Your task to perform on an android device: What is the recent news? Image 0: 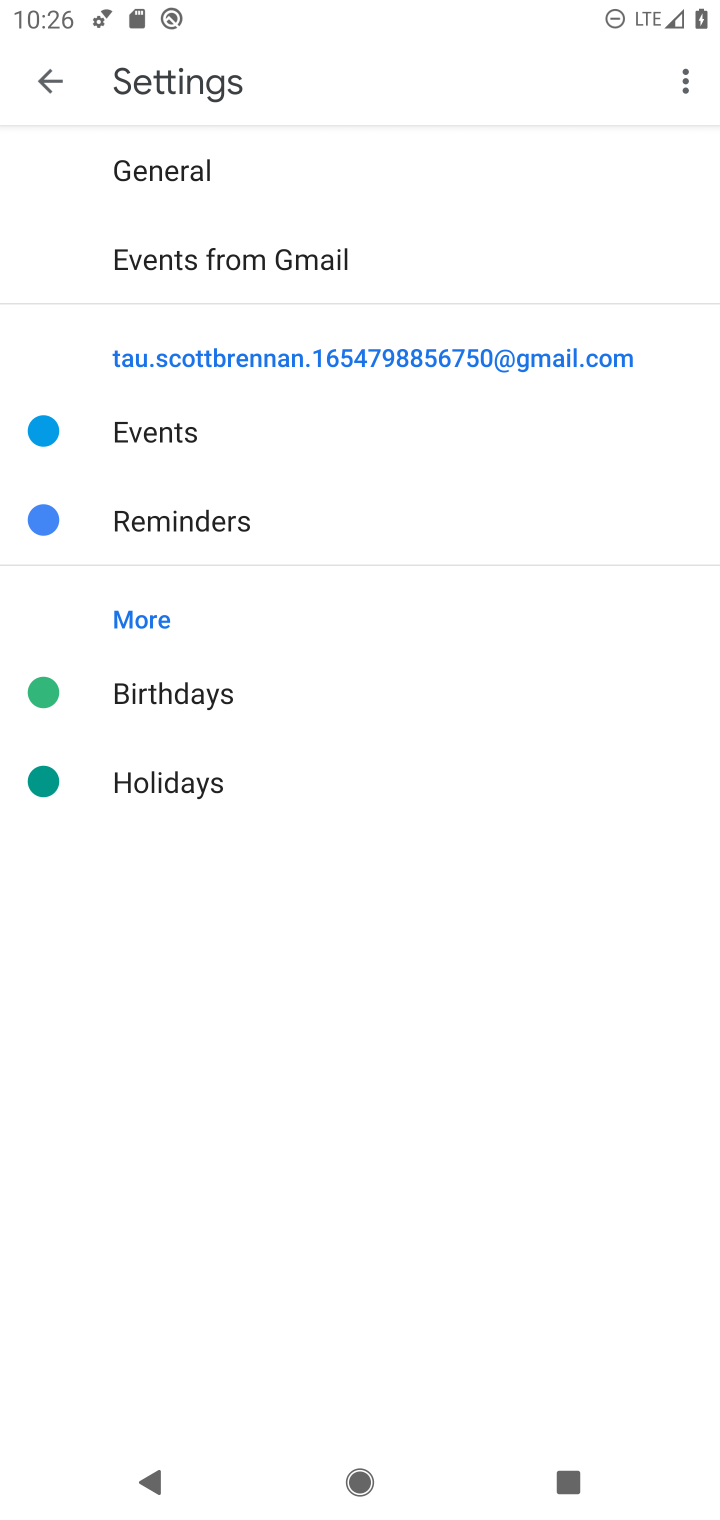
Step 0: press home button
Your task to perform on an android device: What is the recent news? Image 1: 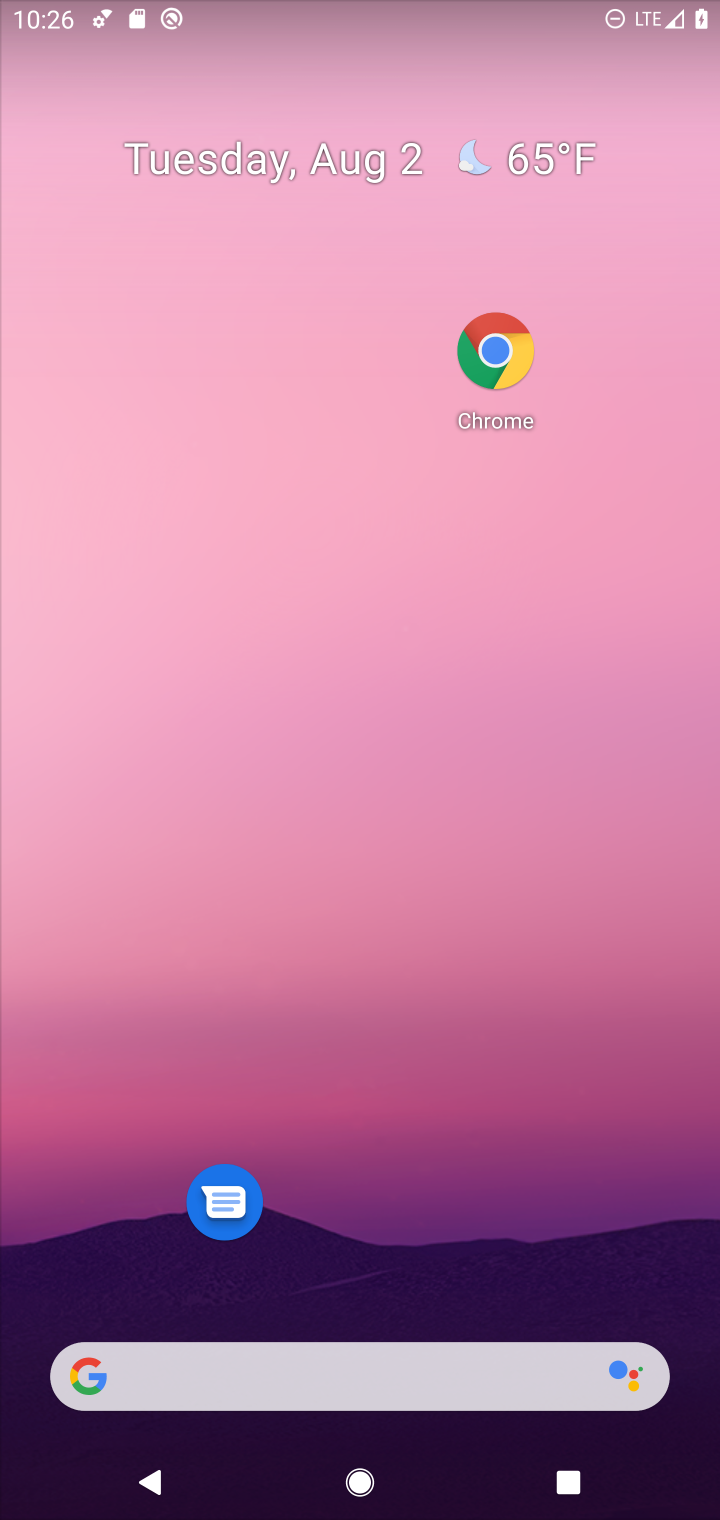
Step 1: click (232, 1363)
Your task to perform on an android device: What is the recent news? Image 2: 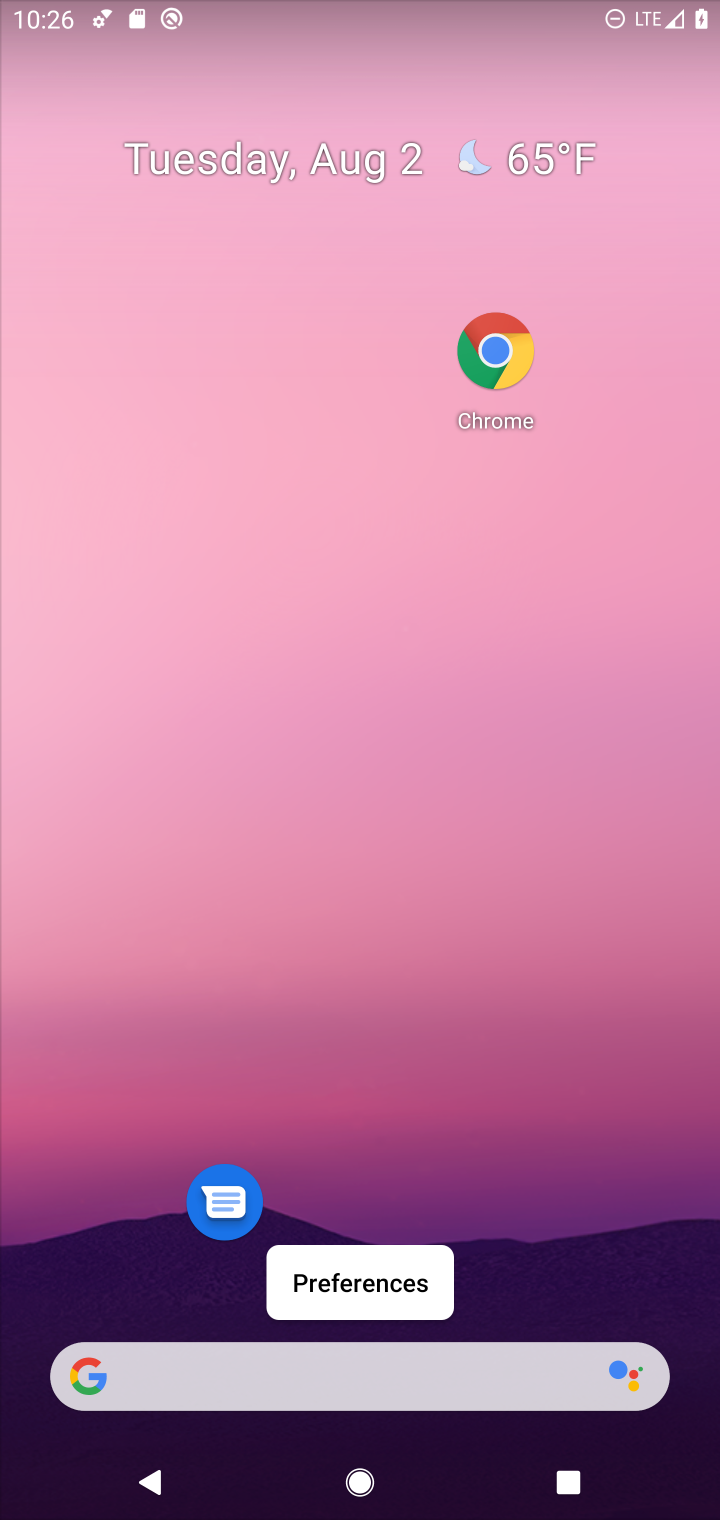
Step 2: click (205, 1371)
Your task to perform on an android device: What is the recent news? Image 3: 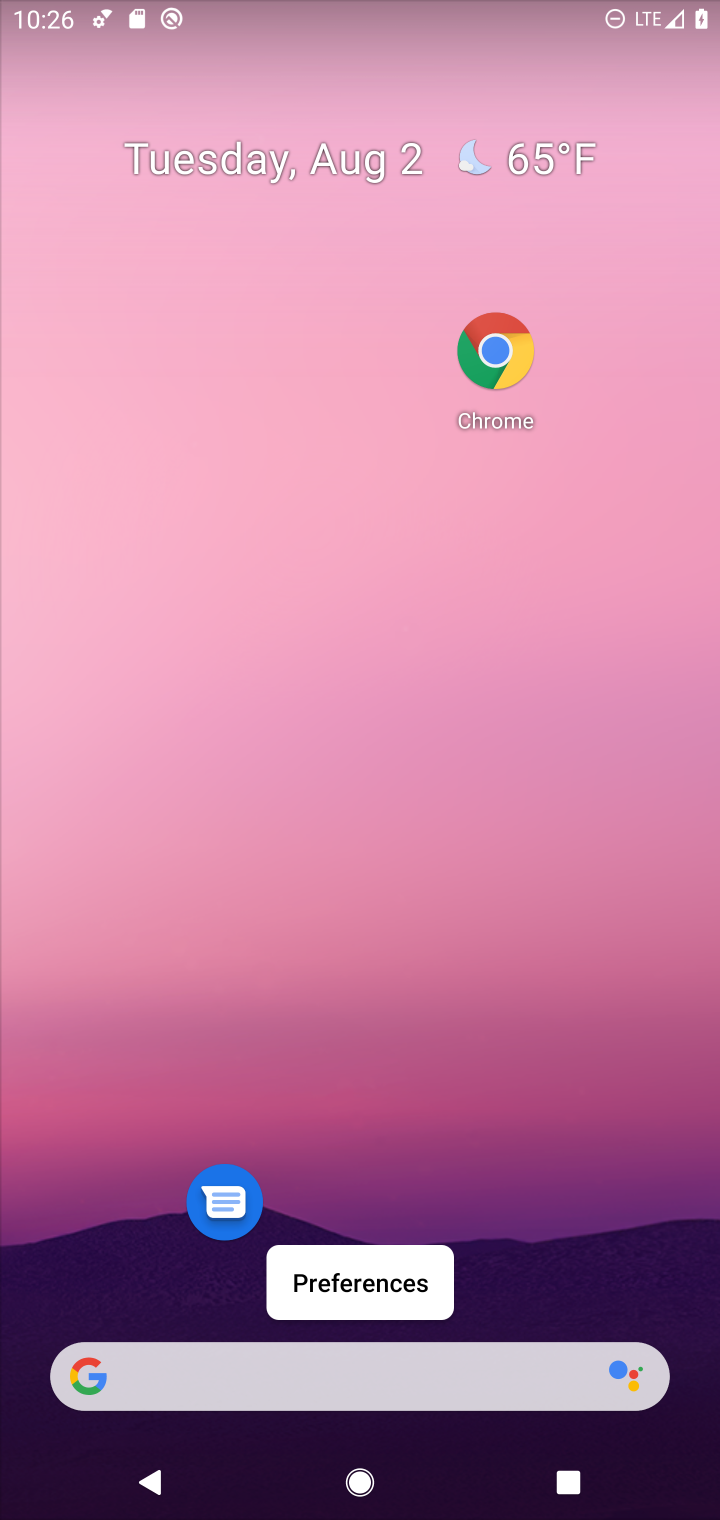
Step 3: click (214, 1366)
Your task to perform on an android device: What is the recent news? Image 4: 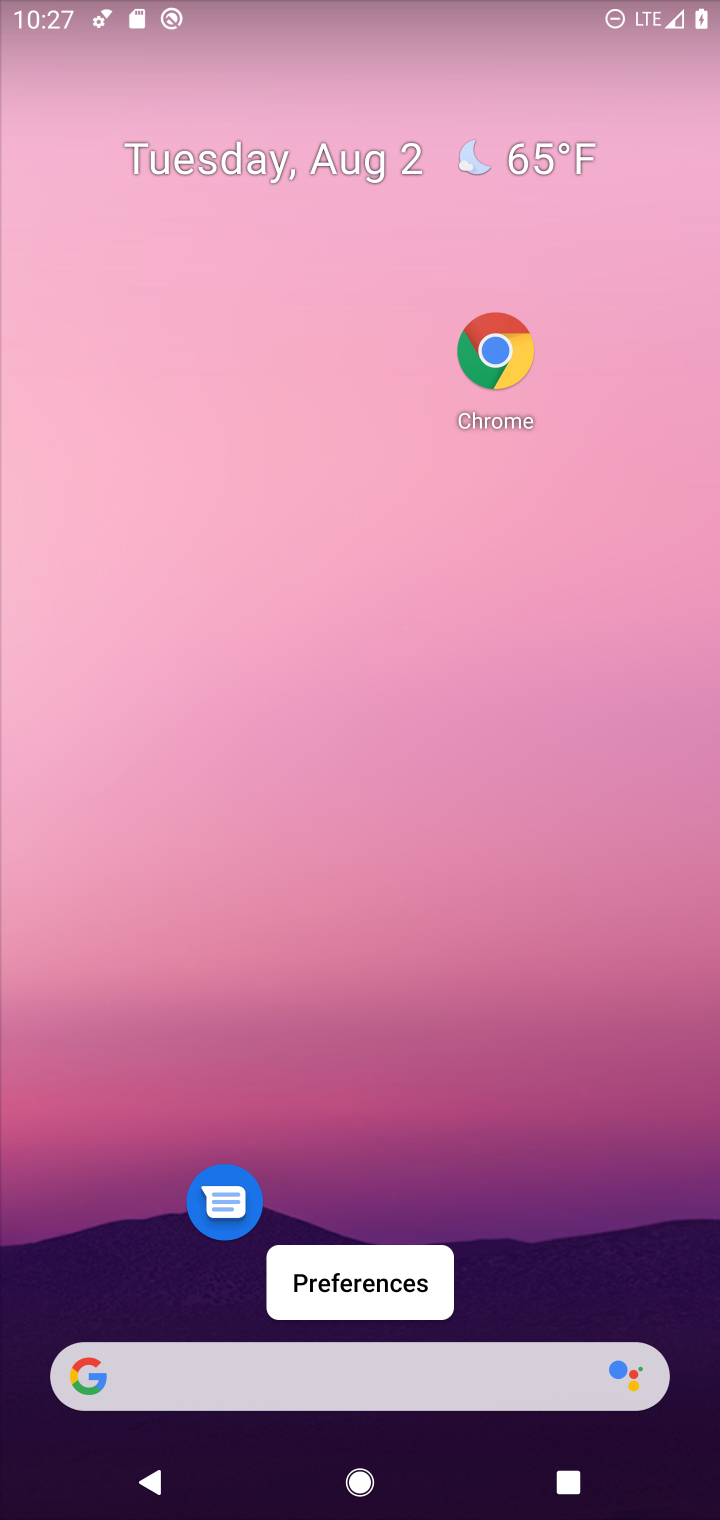
Step 4: click (174, 1371)
Your task to perform on an android device: What is the recent news? Image 5: 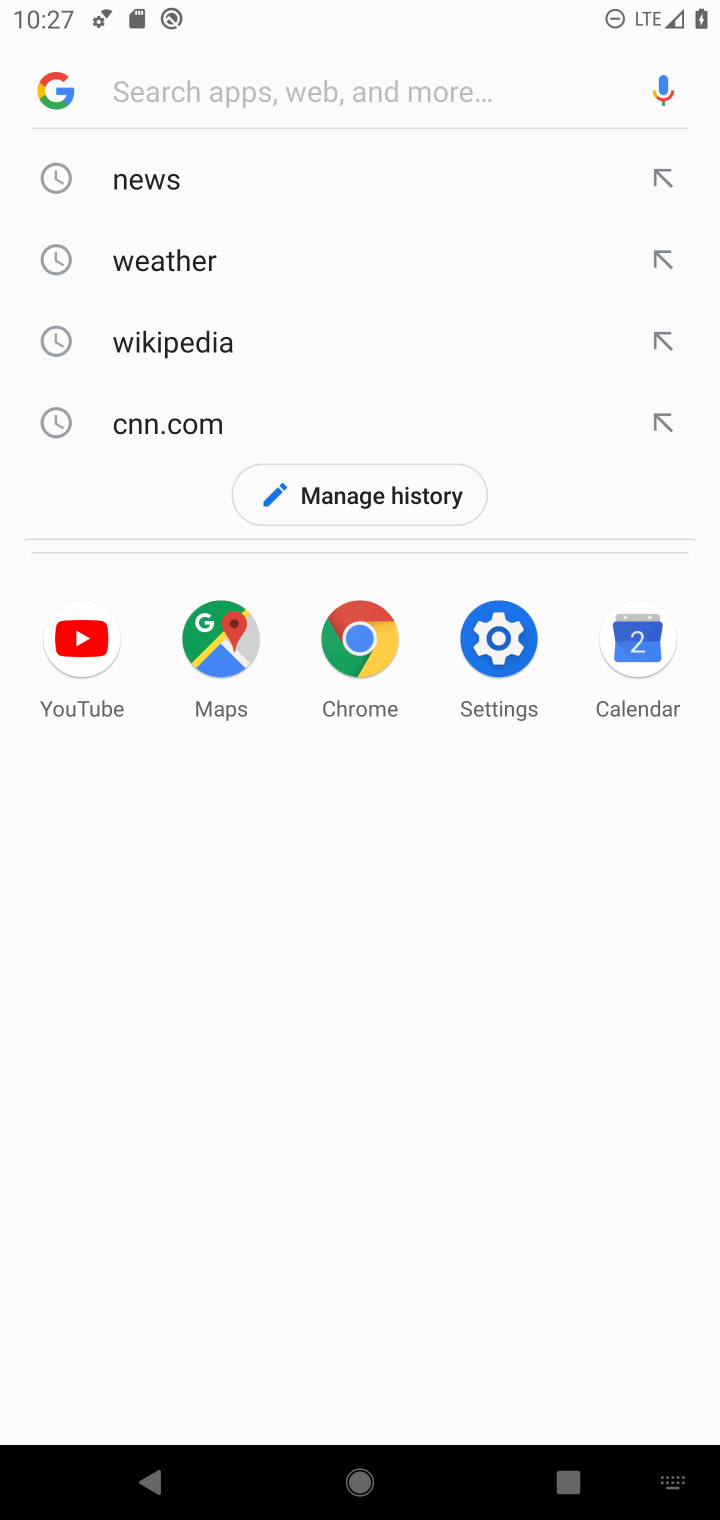
Step 5: click (297, 97)
Your task to perform on an android device: What is the recent news? Image 6: 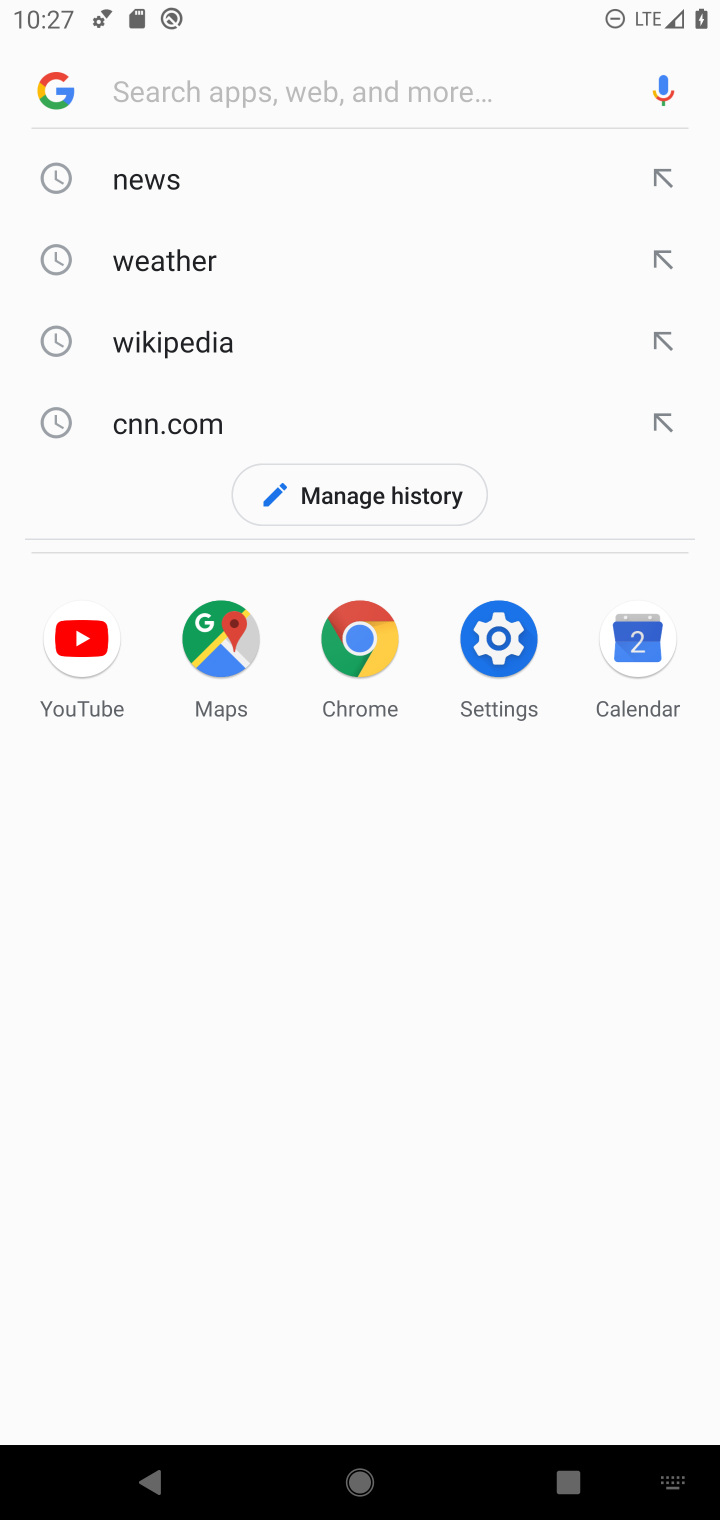
Step 6: type "recent news"
Your task to perform on an android device: What is the recent news? Image 7: 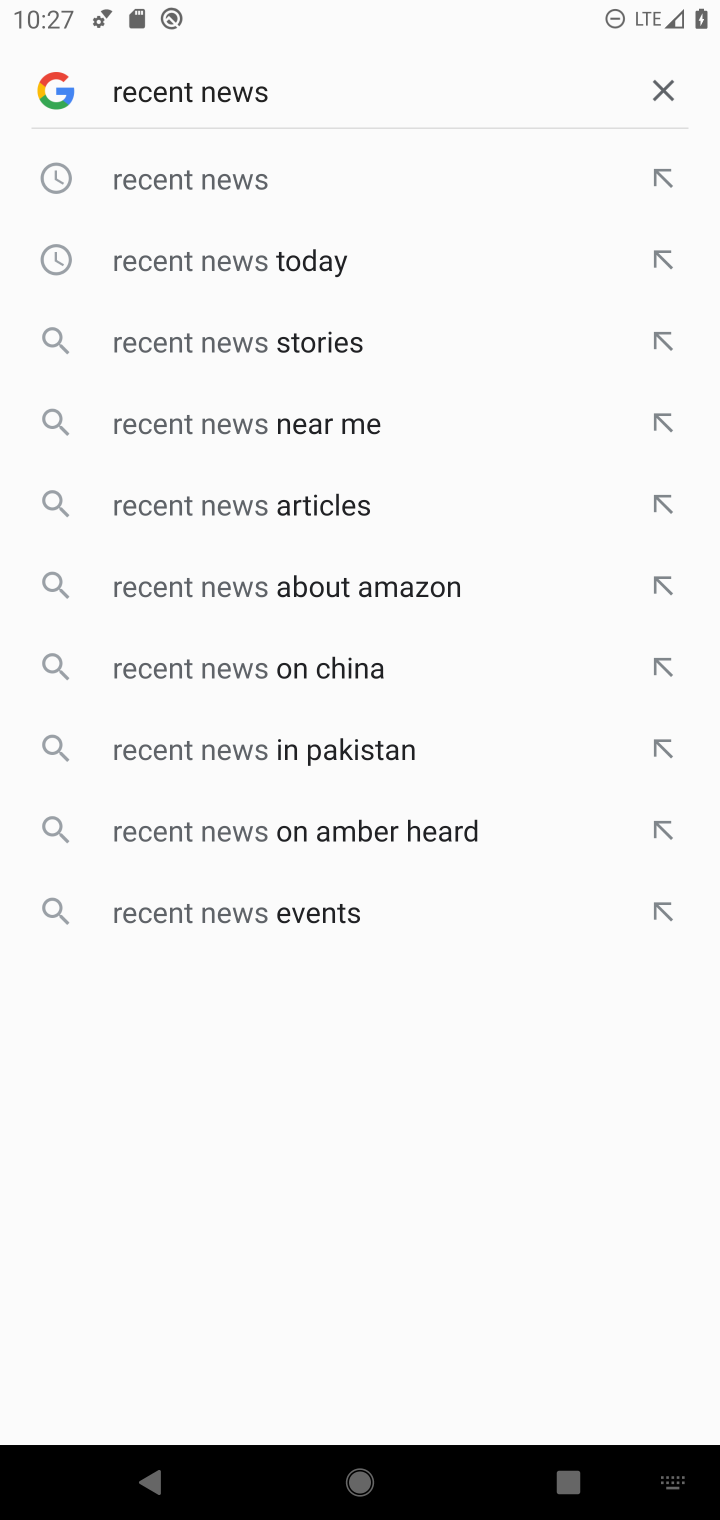
Step 7: click (215, 192)
Your task to perform on an android device: What is the recent news? Image 8: 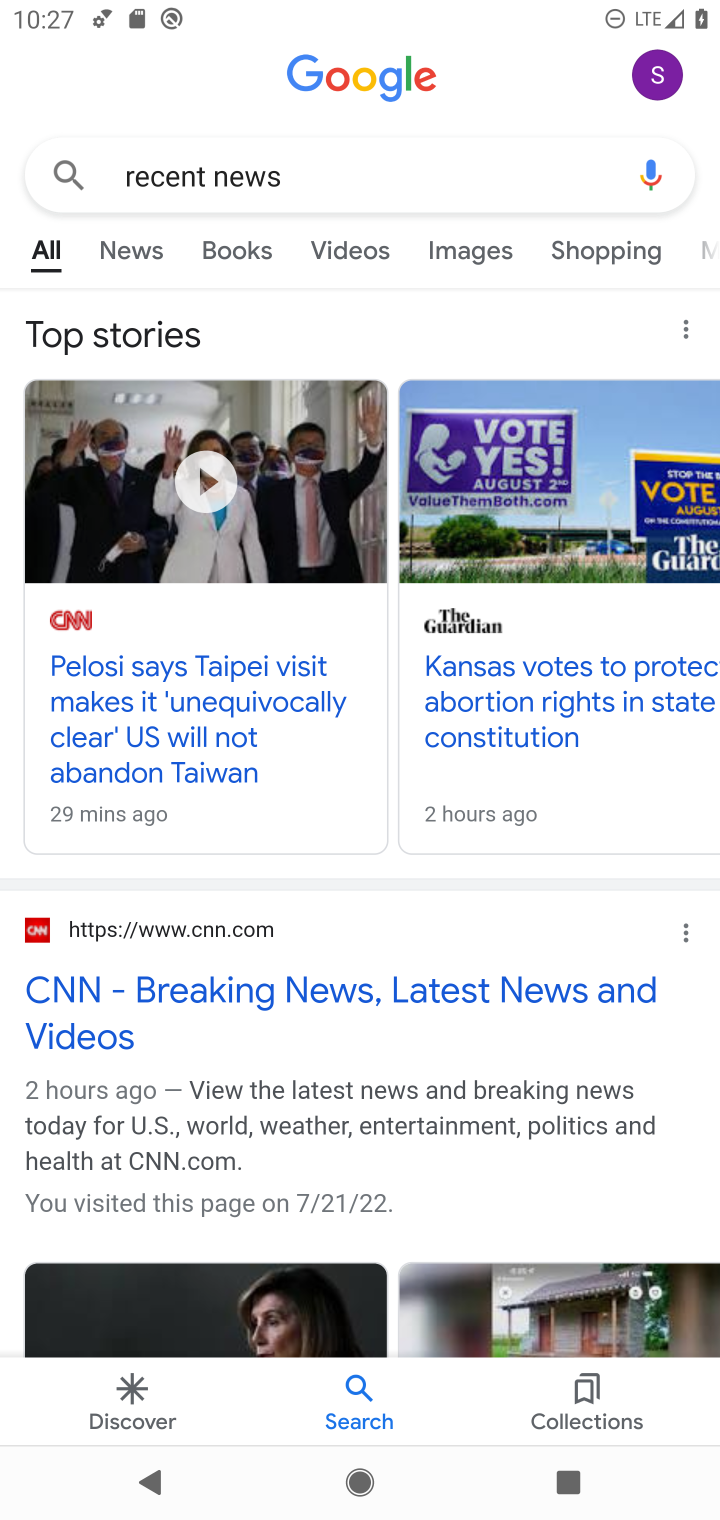
Step 8: click (192, 690)
Your task to perform on an android device: What is the recent news? Image 9: 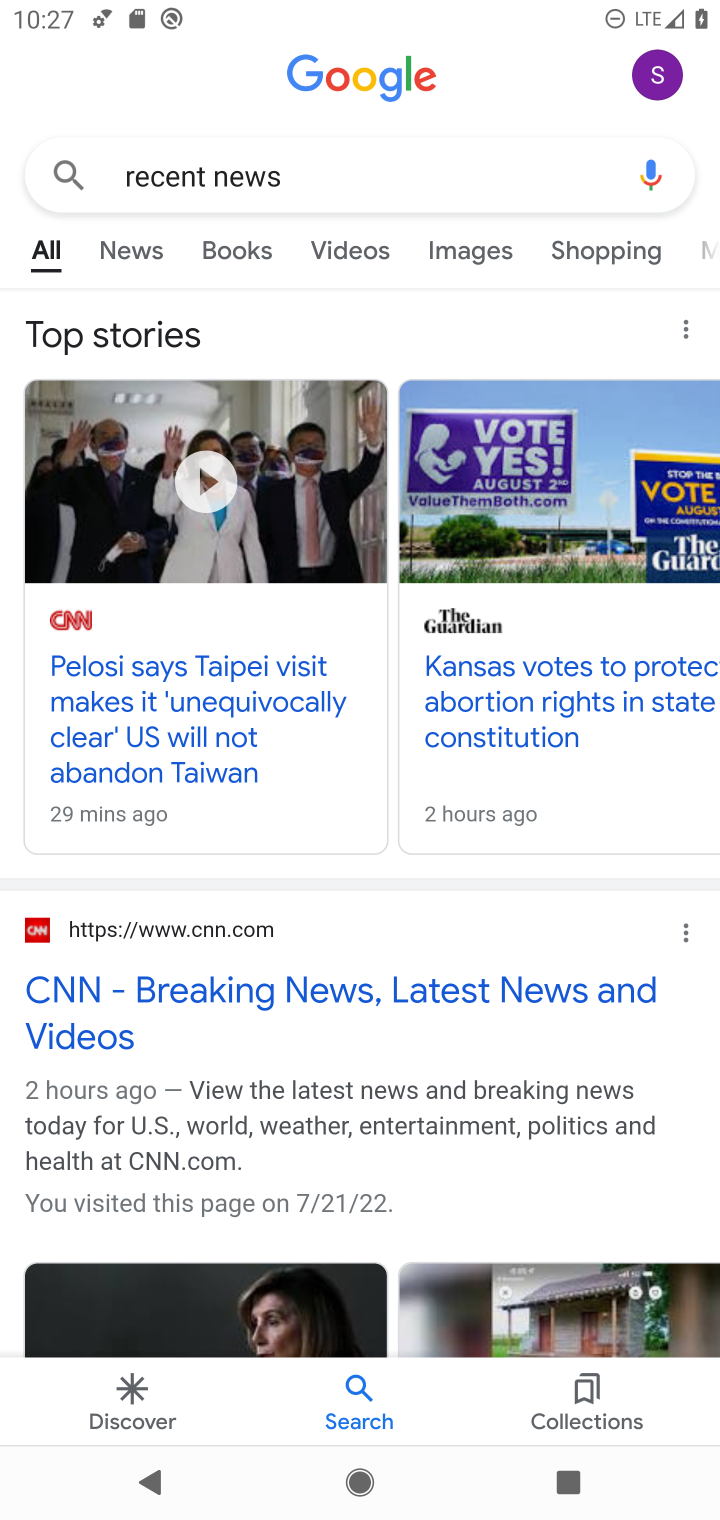
Step 9: click (199, 752)
Your task to perform on an android device: What is the recent news? Image 10: 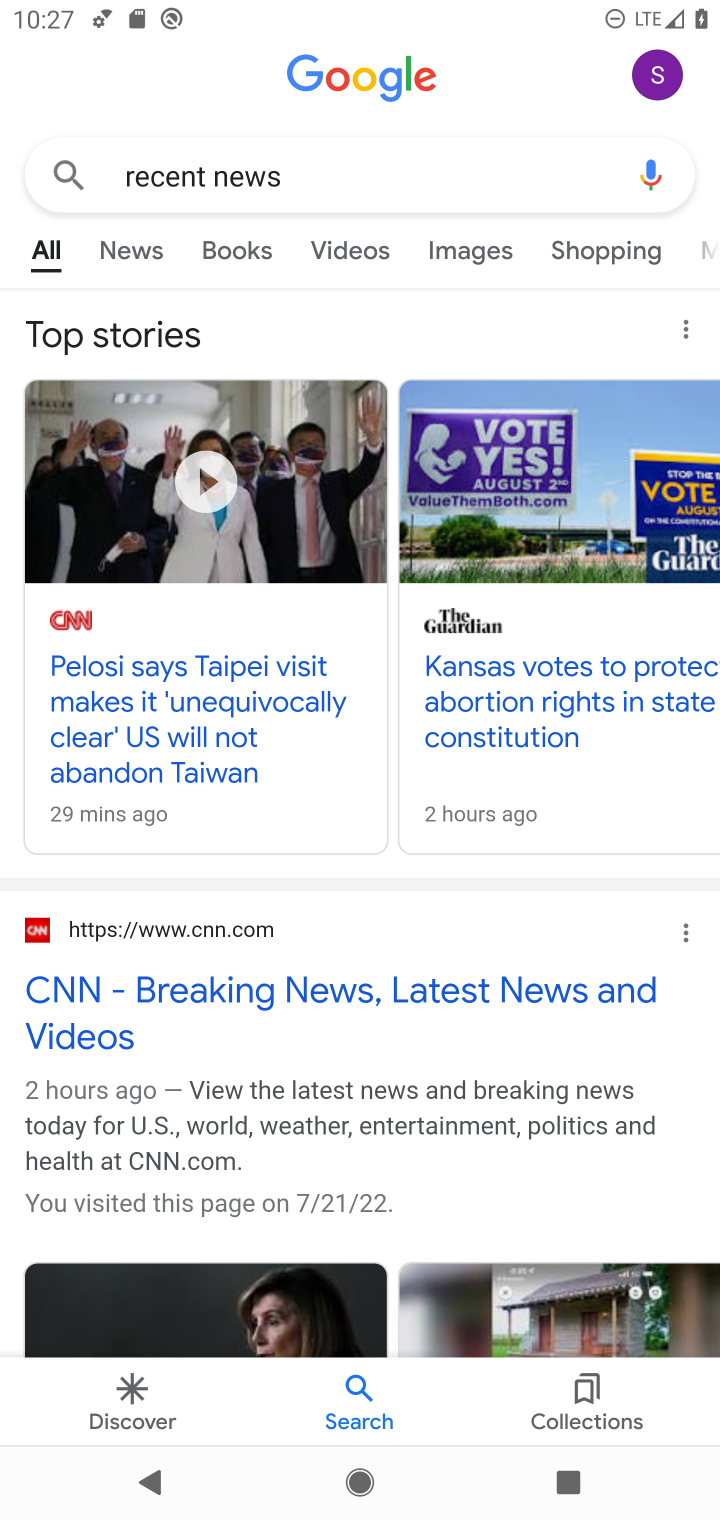
Step 10: click (139, 259)
Your task to perform on an android device: What is the recent news? Image 11: 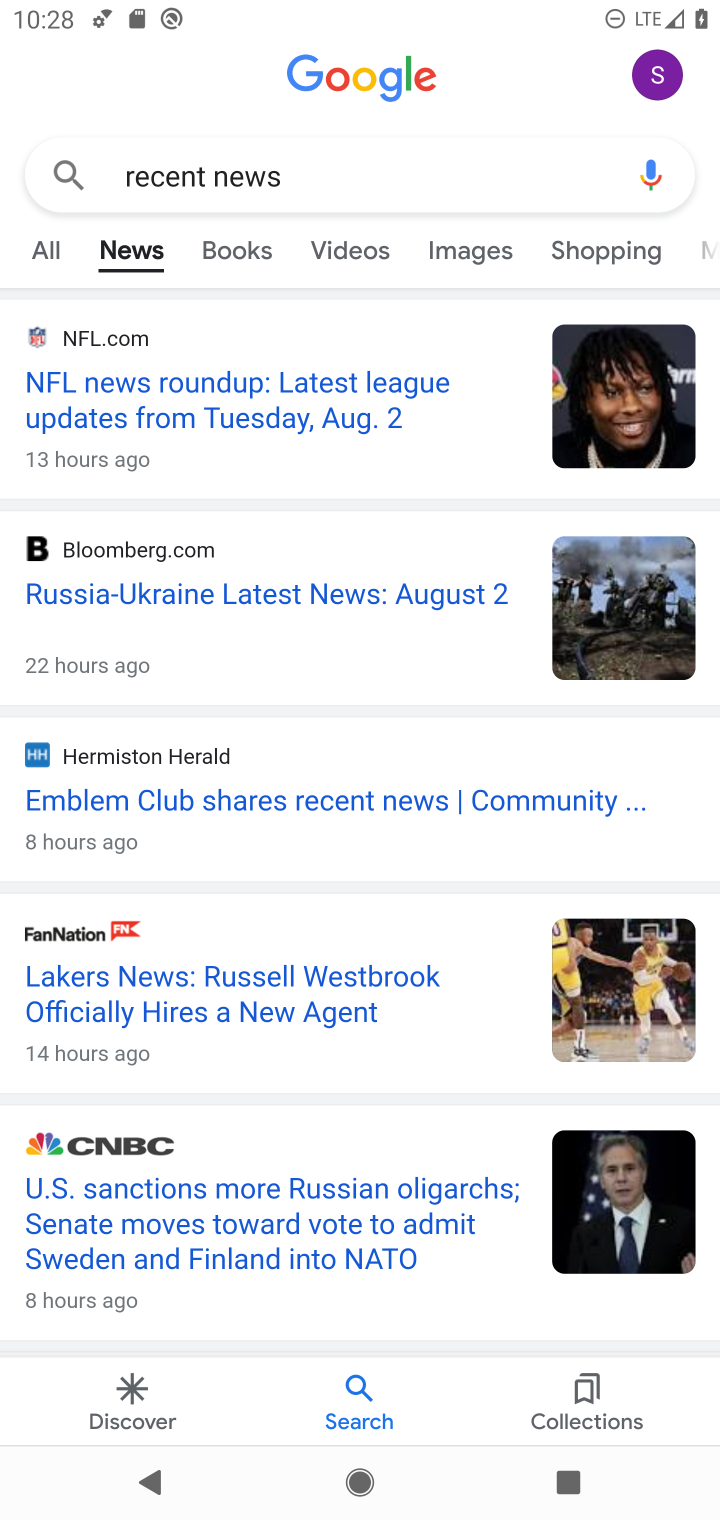
Step 11: drag from (218, 842) to (231, 368)
Your task to perform on an android device: What is the recent news? Image 12: 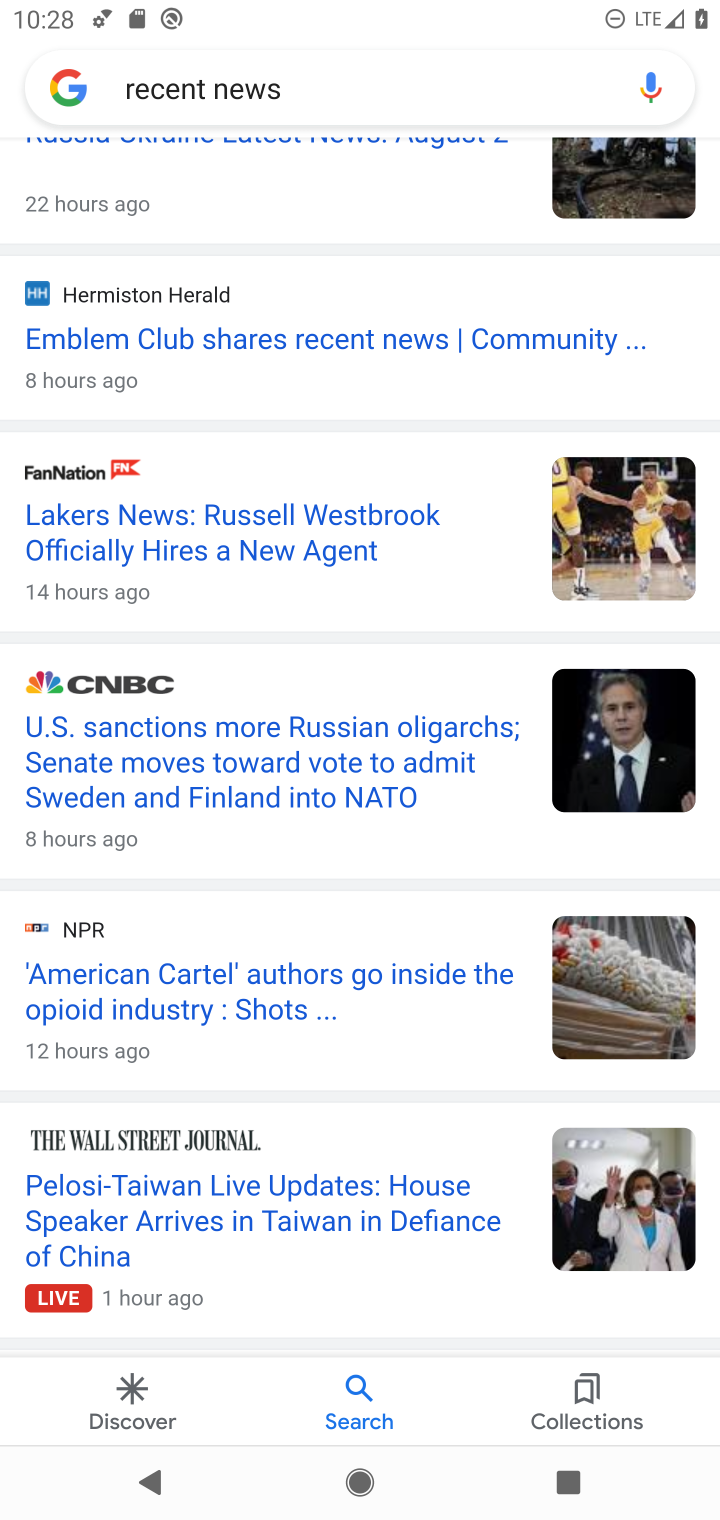
Step 12: drag from (186, 1177) to (232, 526)
Your task to perform on an android device: What is the recent news? Image 13: 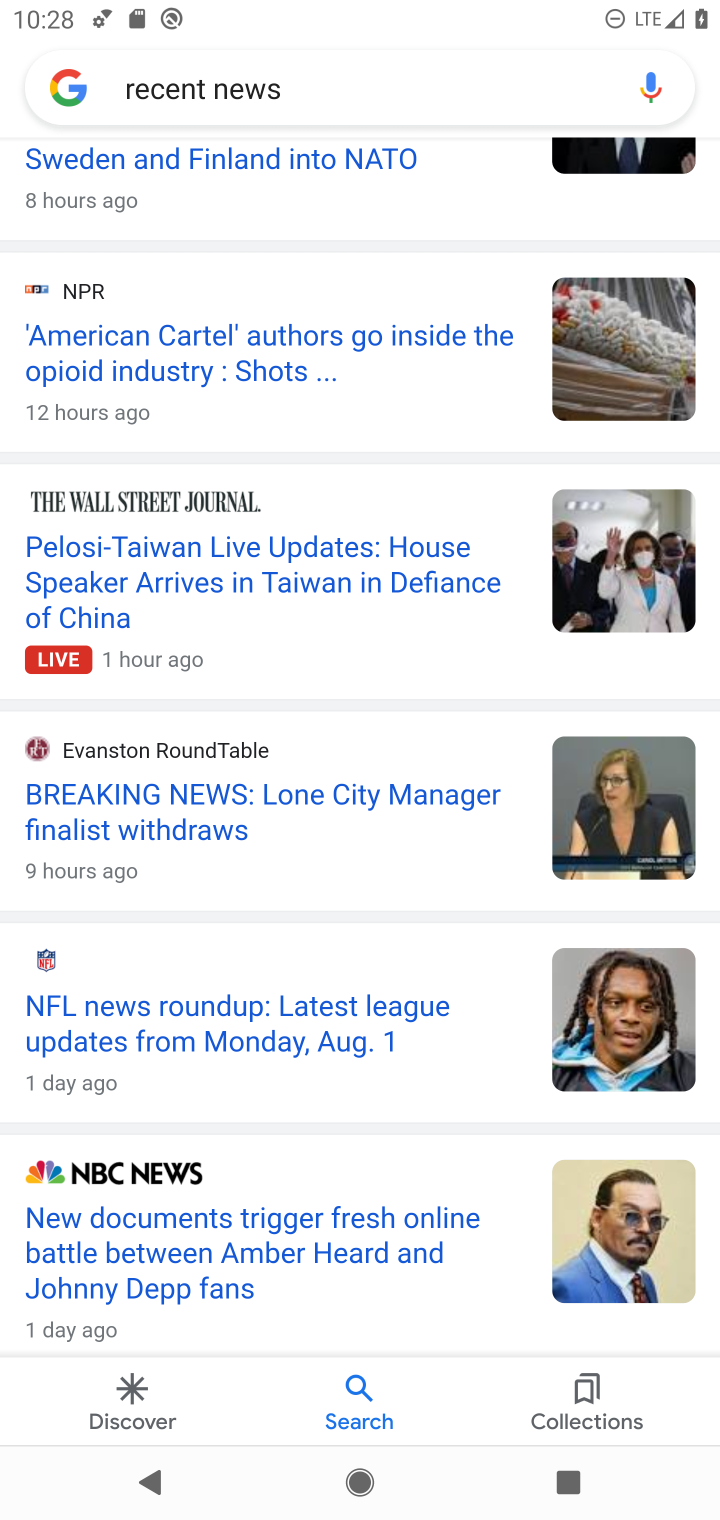
Step 13: click (142, 569)
Your task to perform on an android device: What is the recent news? Image 14: 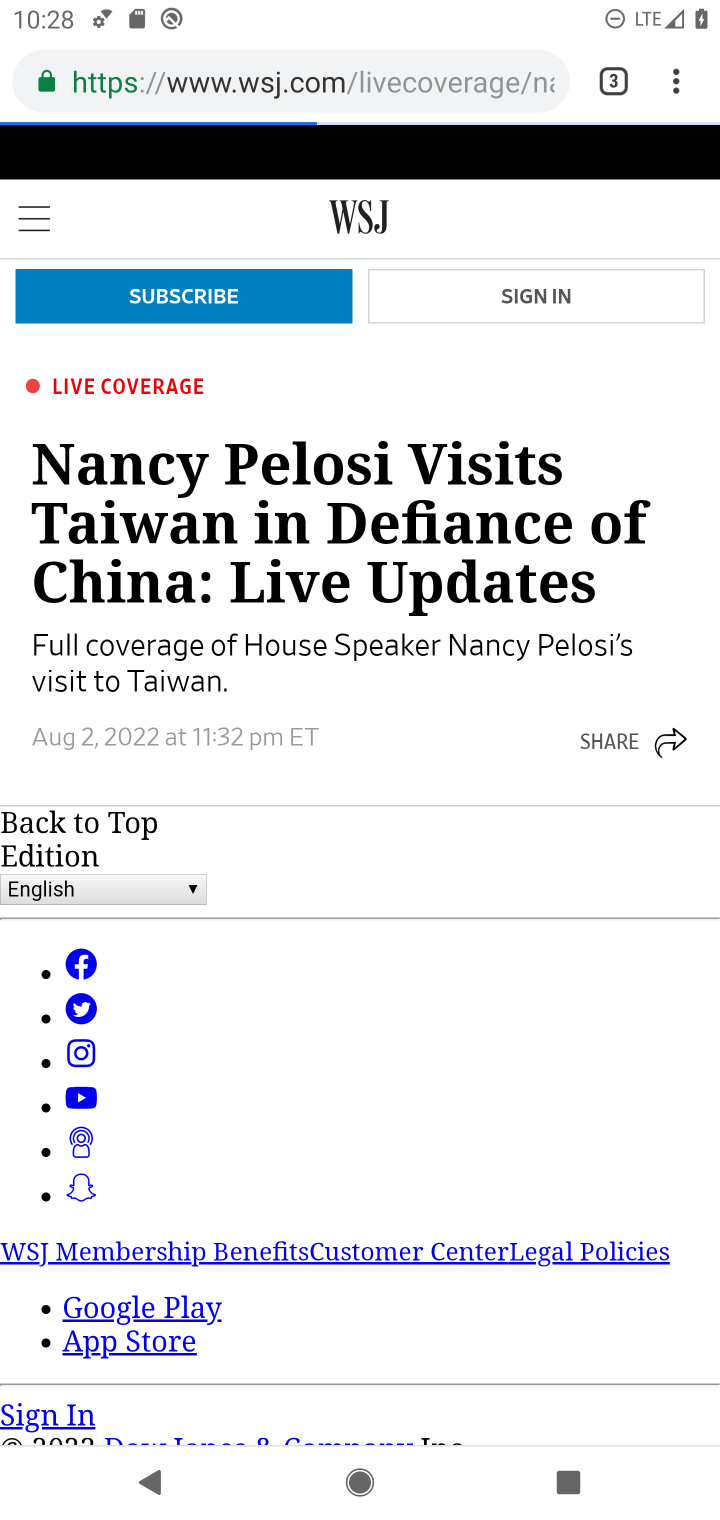
Step 14: task complete